Your task to perform on an android device: Open network settings Image 0: 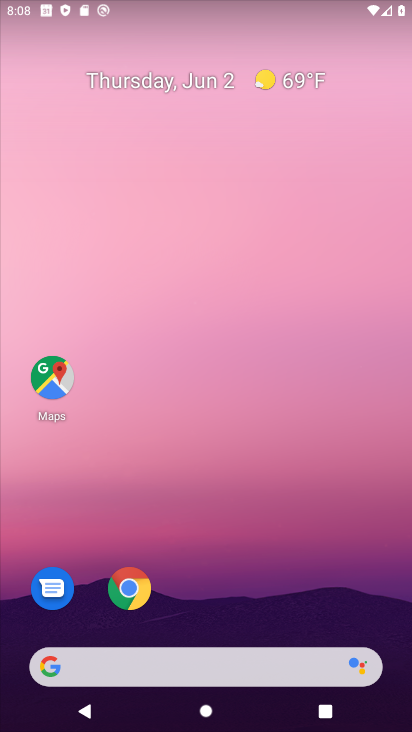
Step 0: drag from (230, 729) to (245, 6)
Your task to perform on an android device: Open network settings Image 1: 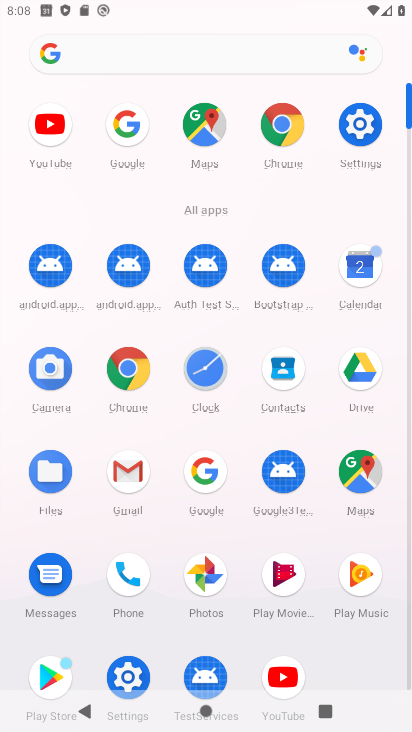
Step 1: click (365, 126)
Your task to perform on an android device: Open network settings Image 2: 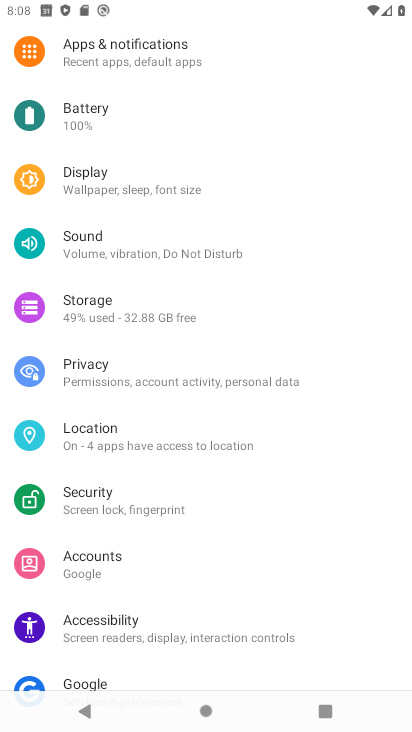
Step 2: drag from (247, 66) to (265, 523)
Your task to perform on an android device: Open network settings Image 3: 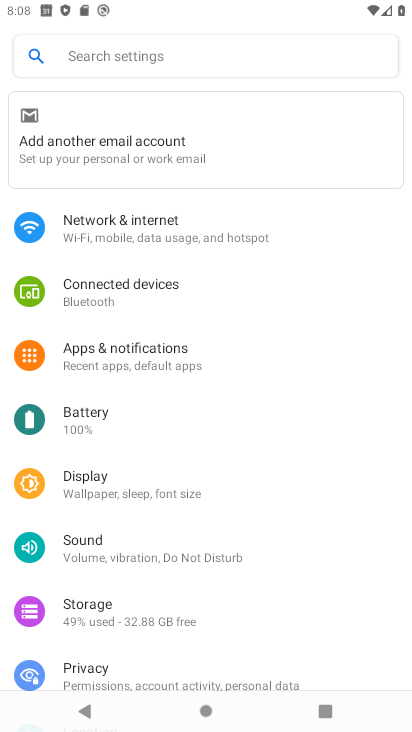
Step 3: click (105, 226)
Your task to perform on an android device: Open network settings Image 4: 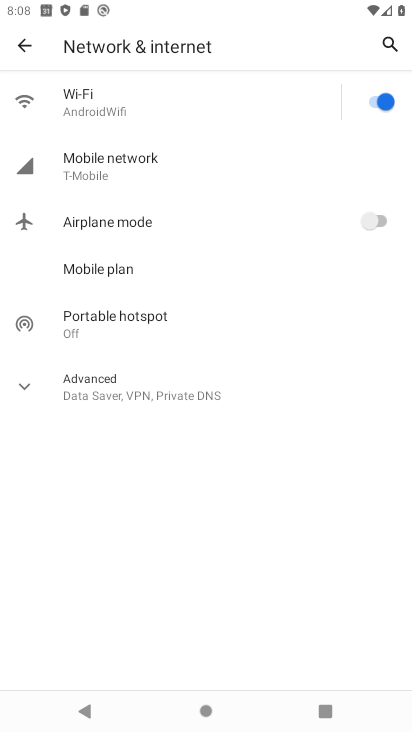
Step 4: click (102, 159)
Your task to perform on an android device: Open network settings Image 5: 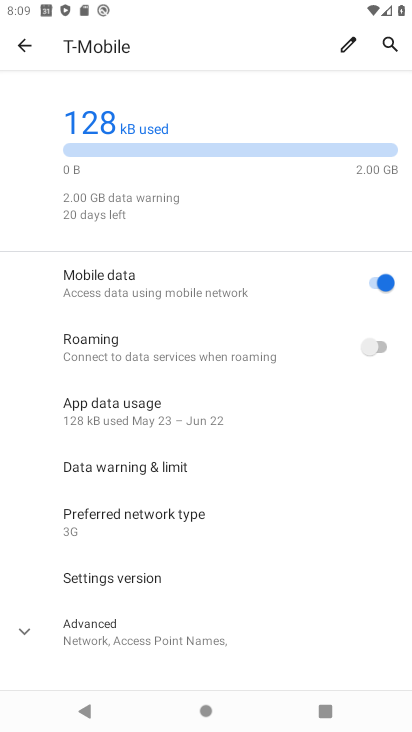
Step 5: task complete